Your task to perform on an android device: Clear all items from cart on newegg. Image 0: 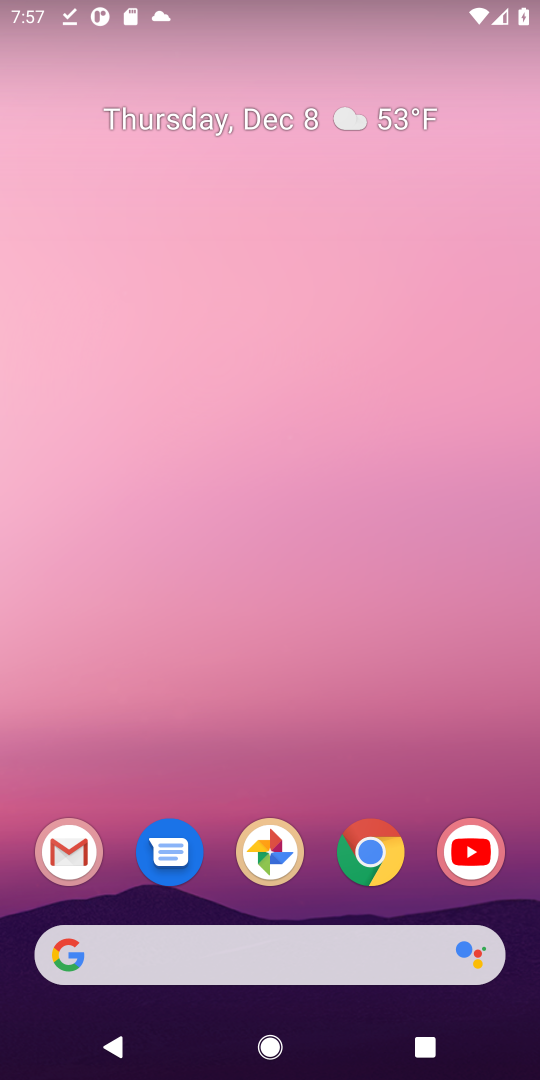
Step 0: click (333, 930)
Your task to perform on an android device: Clear all items from cart on newegg. Image 1: 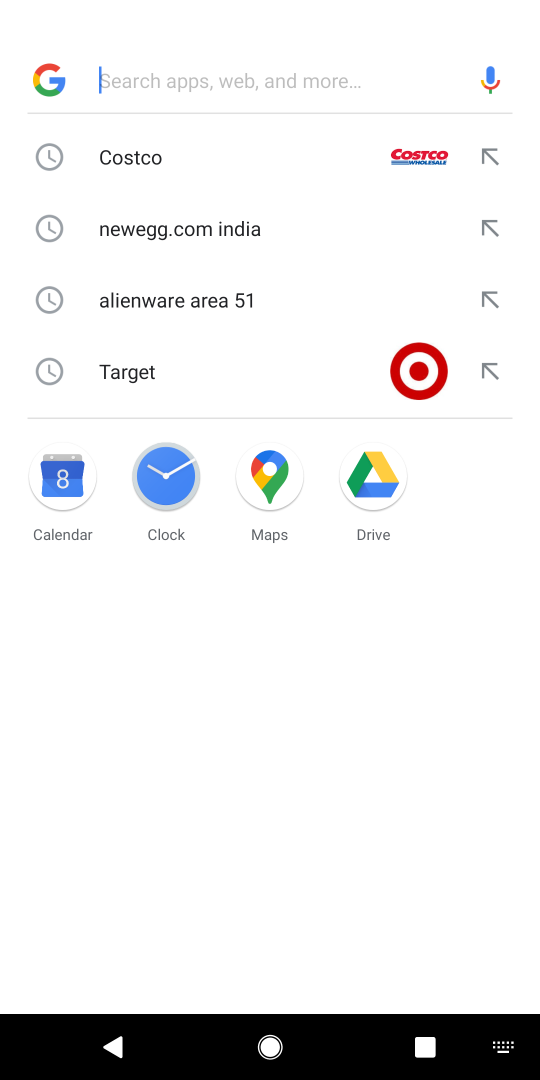
Step 1: type "newegg"
Your task to perform on an android device: Clear all items from cart on newegg. Image 2: 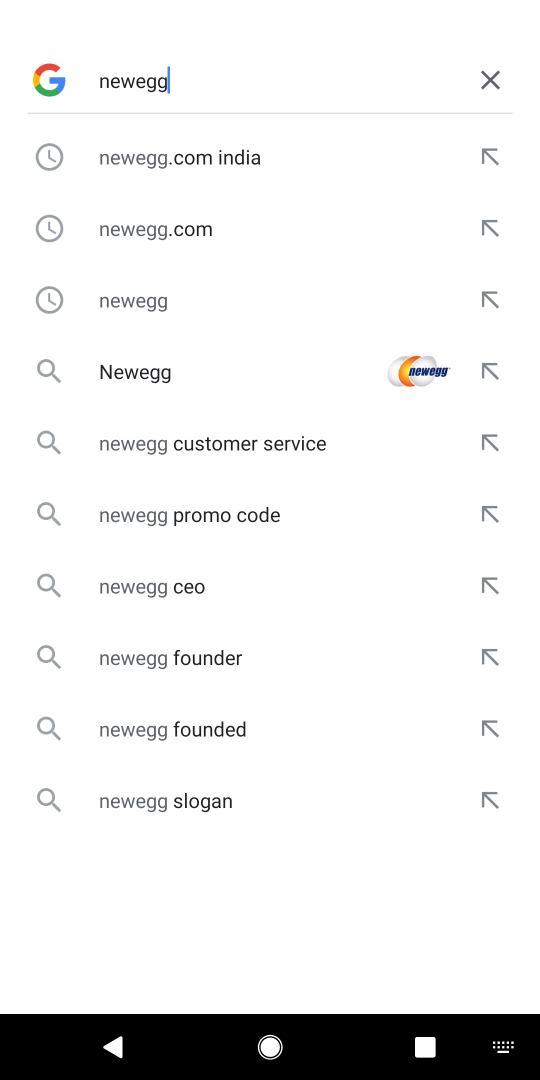
Step 2: click (227, 166)
Your task to perform on an android device: Clear all items from cart on newegg. Image 3: 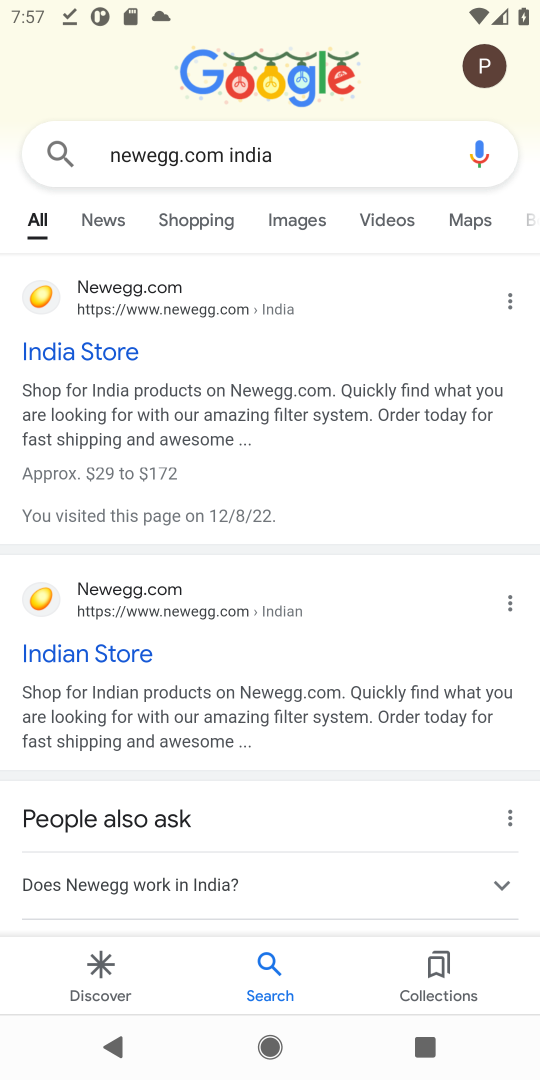
Step 3: click (31, 344)
Your task to perform on an android device: Clear all items from cart on newegg. Image 4: 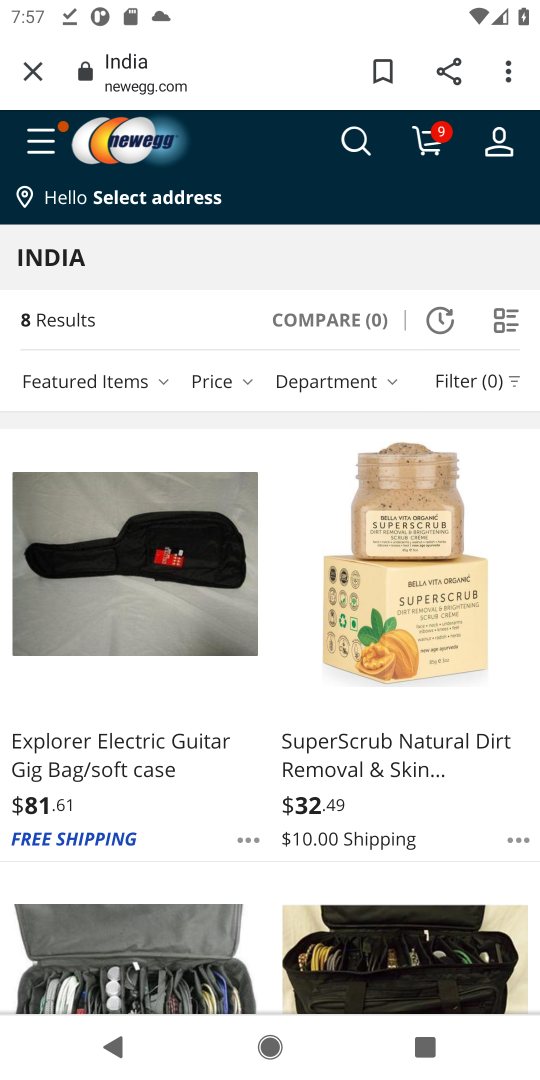
Step 4: task complete